Your task to perform on an android device: toggle priority inbox in the gmail app Image 0: 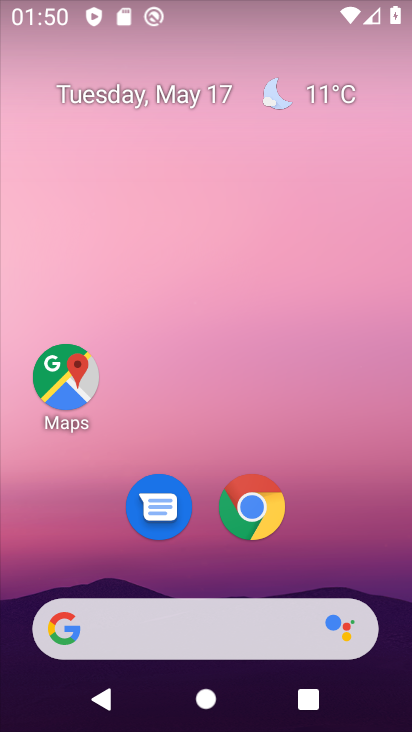
Step 0: drag from (189, 578) to (163, 130)
Your task to perform on an android device: toggle priority inbox in the gmail app Image 1: 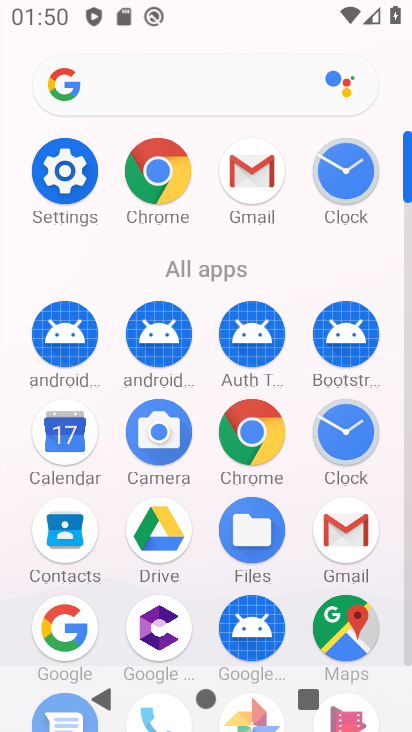
Step 1: click (239, 182)
Your task to perform on an android device: toggle priority inbox in the gmail app Image 2: 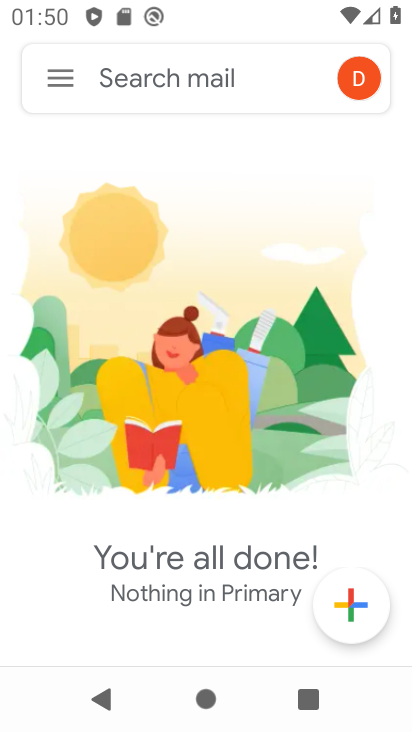
Step 2: click (37, 86)
Your task to perform on an android device: toggle priority inbox in the gmail app Image 3: 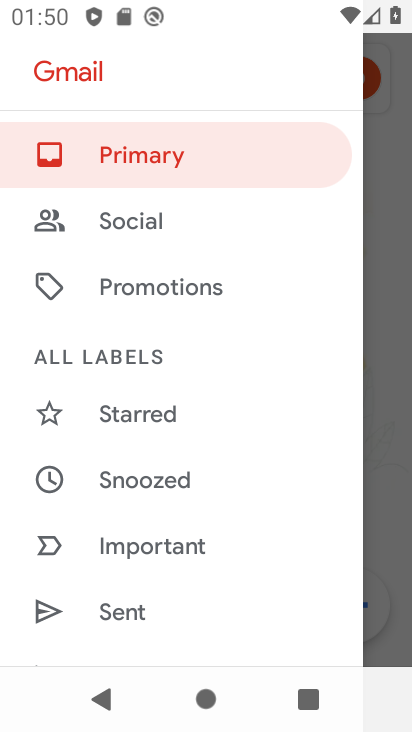
Step 3: drag from (72, 639) to (181, 265)
Your task to perform on an android device: toggle priority inbox in the gmail app Image 4: 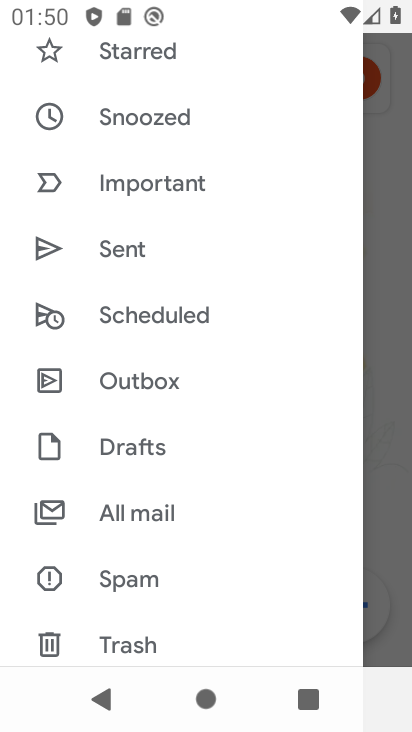
Step 4: drag from (219, 585) to (268, 3)
Your task to perform on an android device: toggle priority inbox in the gmail app Image 5: 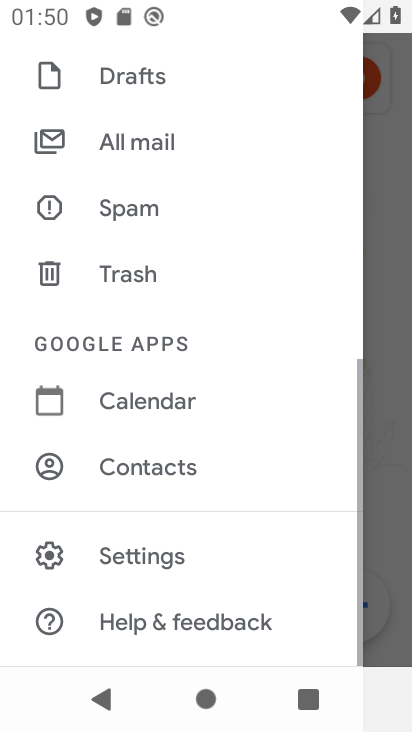
Step 5: click (161, 534)
Your task to perform on an android device: toggle priority inbox in the gmail app Image 6: 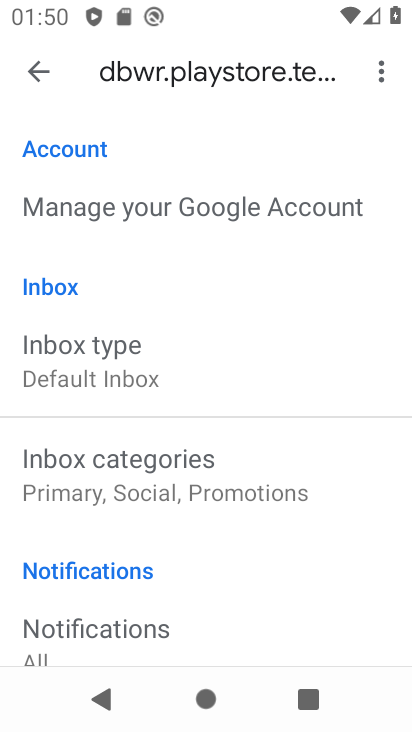
Step 6: click (168, 385)
Your task to perform on an android device: toggle priority inbox in the gmail app Image 7: 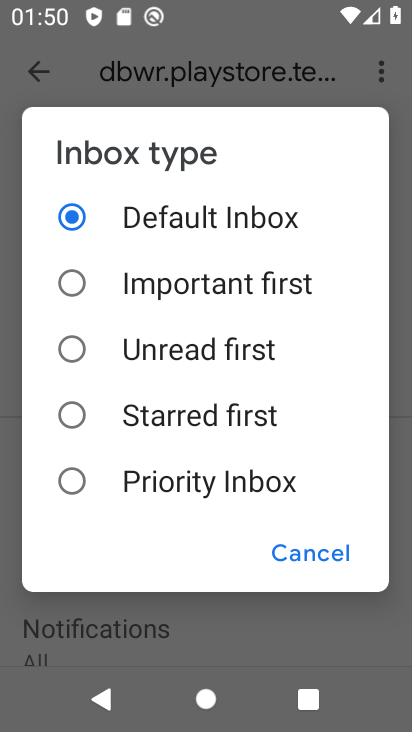
Step 7: click (200, 457)
Your task to perform on an android device: toggle priority inbox in the gmail app Image 8: 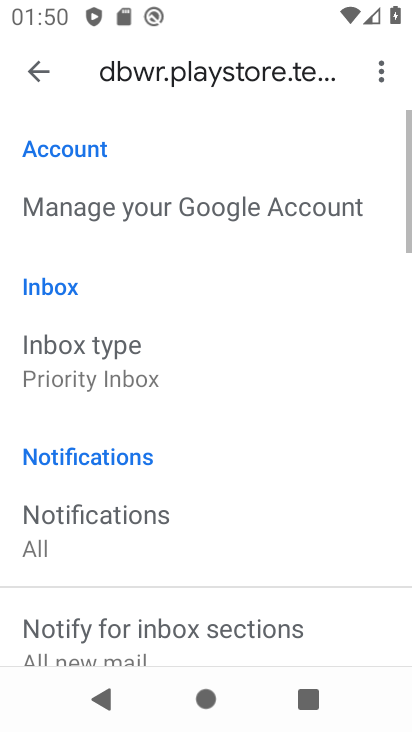
Step 8: task complete